Your task to perform on an android device: Open Android settings Image 0: 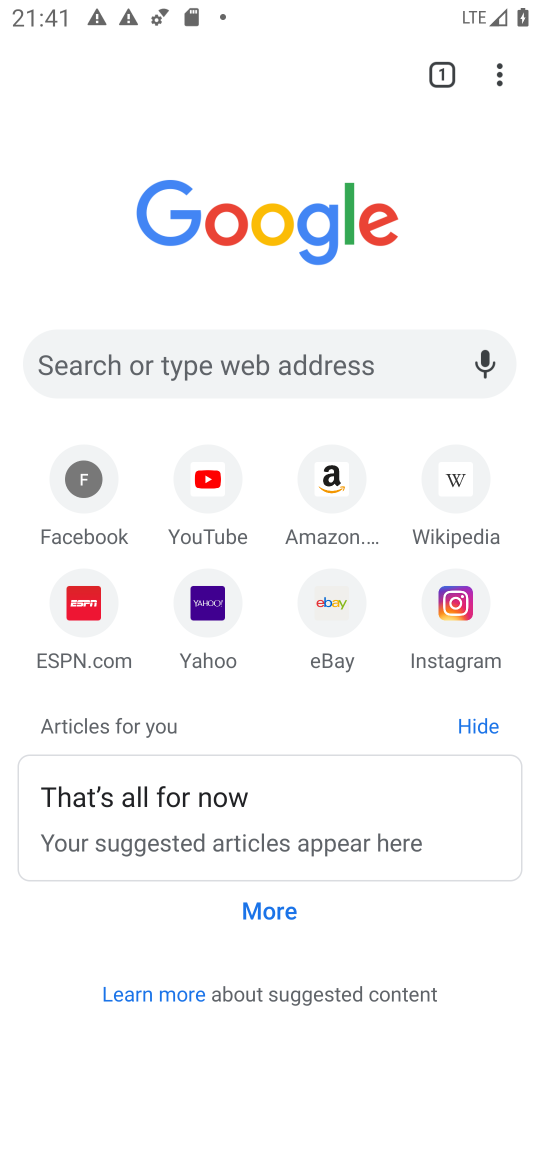
Step 0: press home button
Your task to perform on an android device: Open Android settings Image 1: 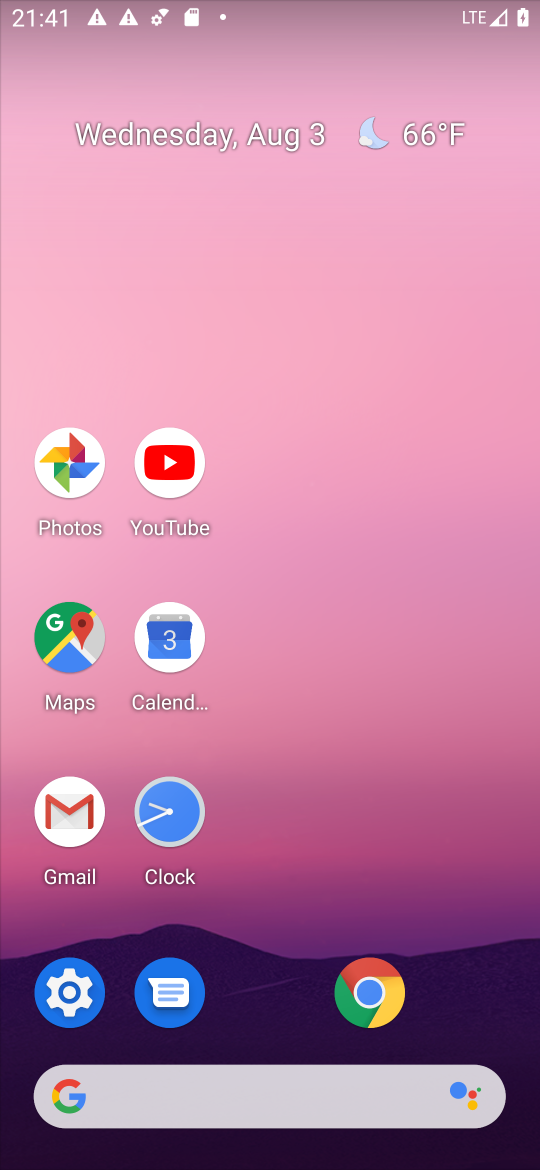
Step 1: click (70, 986)
Your task to perform on an android device: Open Android settings Image 2: 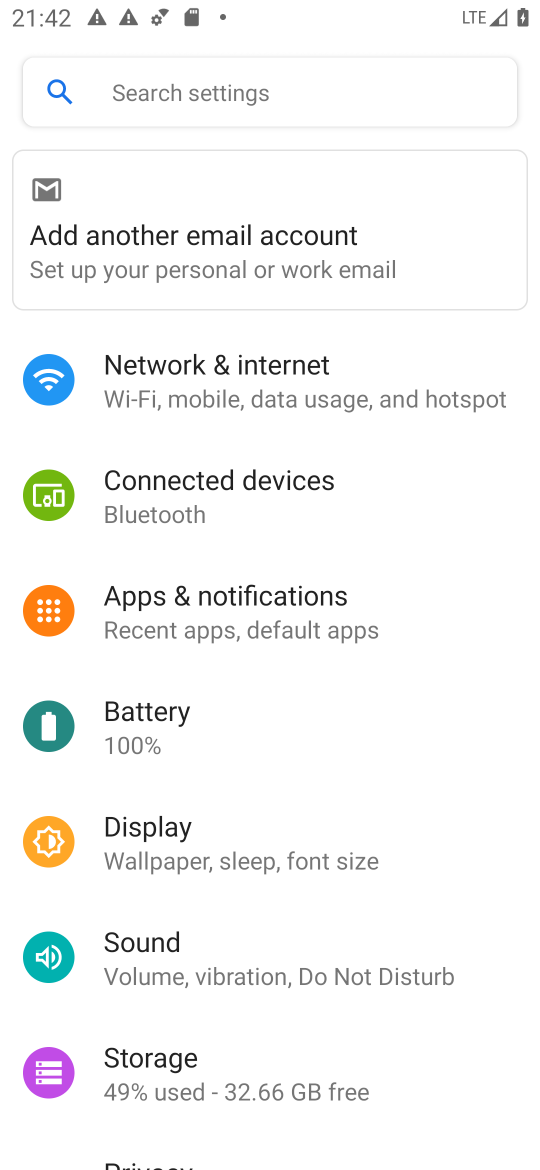
Step 2: drag from (378, 1061) to (298, 482)
Your task to perform on an android device: Open Android settings Image 3: 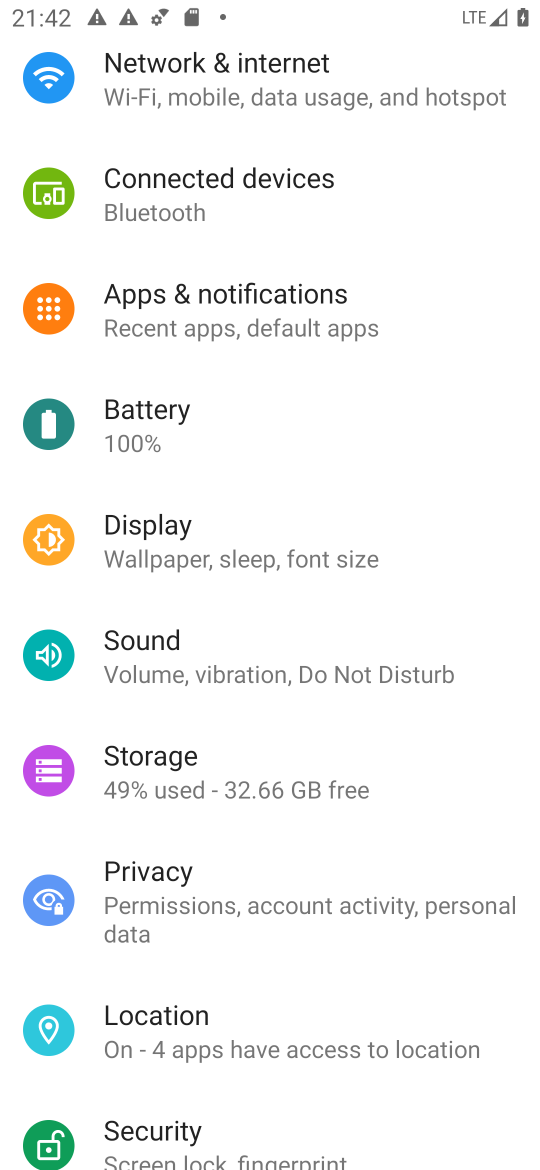
Step 3: drag from (303, 952) to (354, 191)
Your task to perform on an android device: Open Android settings Image 4: 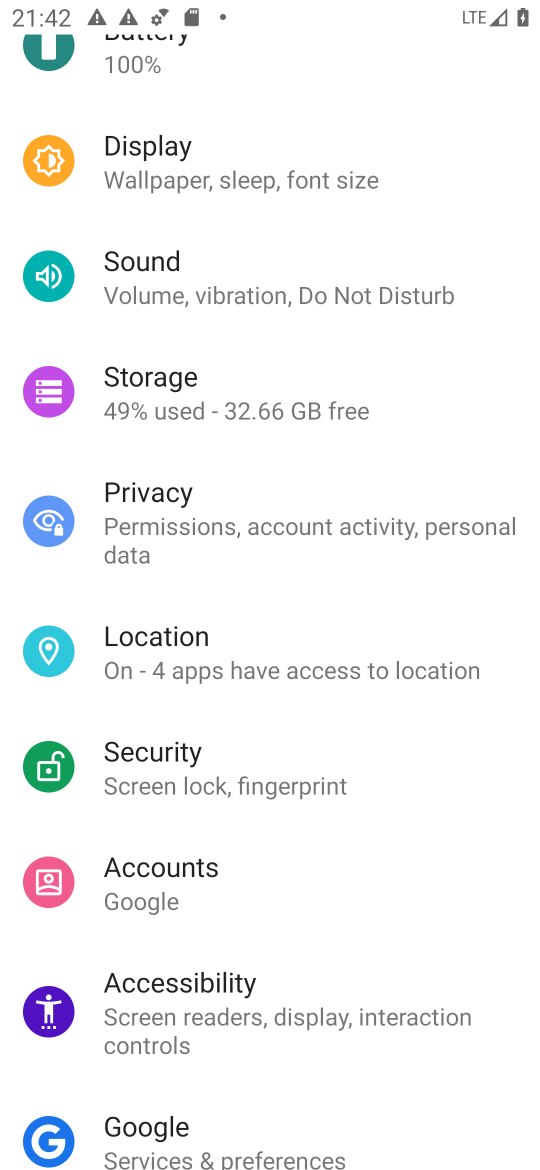
Step 4: drag from (339, 879) to (316, 141)
Your task to perform on an android device: Open Android settings Image 5: 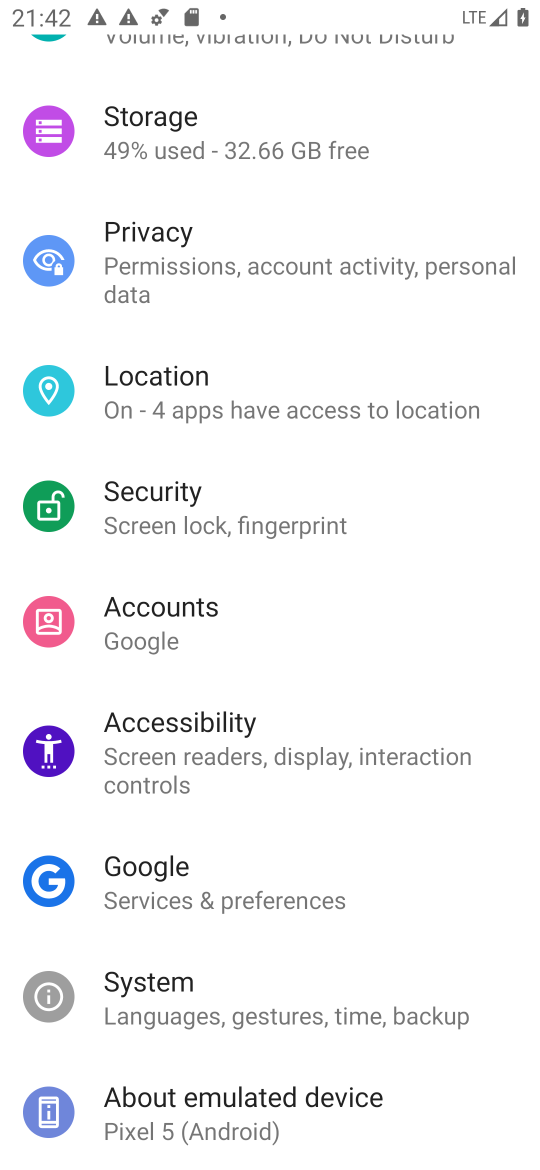
Step 5: click (253, 1089)
Your task to perform on an android device: Open Android settings Image 6: 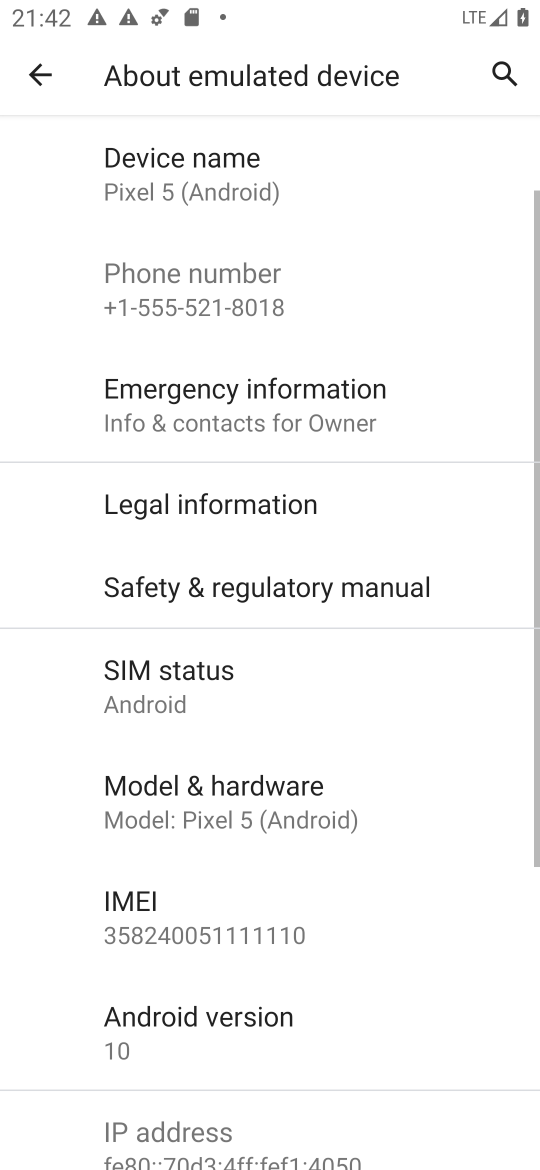
Step 6: task complete